Your task to perform on an android device: toggle data saver in the chrome app Image 0: 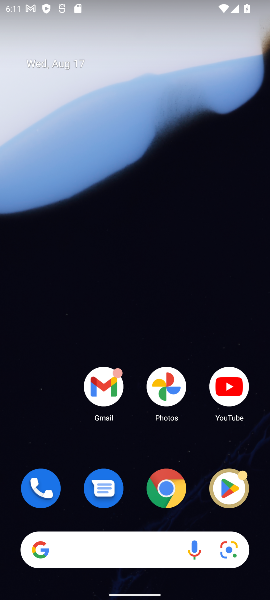
Step 0: drag from (164, 542) to (133, 51)
Your task to perform on an android device: toggle data saver in the chrome app Image 1: 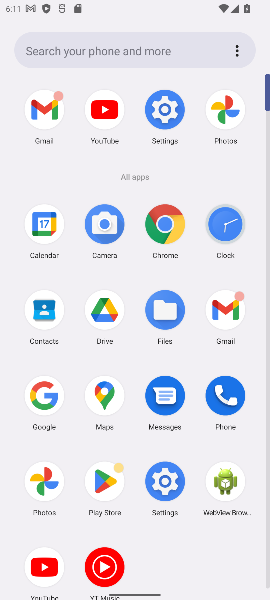
Step 1: click (166, 220)
Your task to perform on an android device: toggle data saver in the chrome app Image 2: 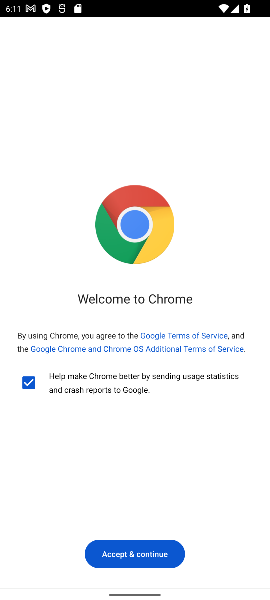
Step 2: click (152, 556)
Your task to perform on an android device: toggle data saver in the chrome app Image 3: 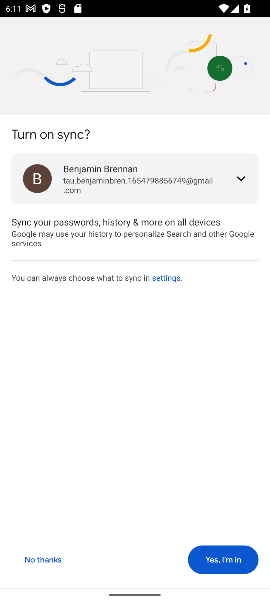
Step 3: click (213, 555)
Your task to perform on an android device: toggle data saver in the chrome app Image 4: 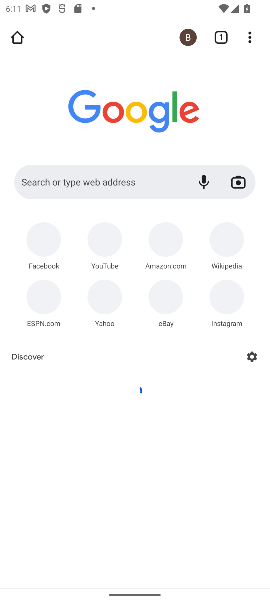
Step 4: drag from (251, 43) to (156, 343)
Your task to perform on an android device: toggle data saver in the chrome app Image 5: 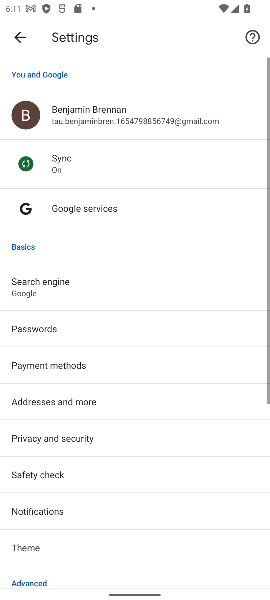
Step 5: drag from (94, 399) to (51, 49)
Your task to perform on an android device: toggle data saver in the chrome app Image 6: 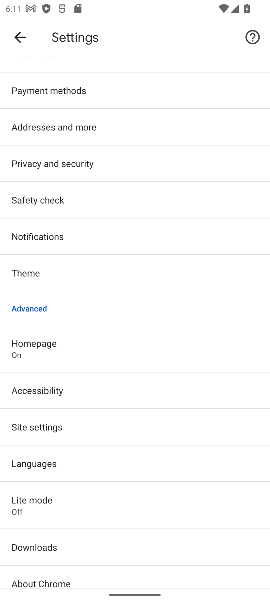
Step 6: drag from (148, 315) to (166, 145)
Your task to perform on an android device: toggle data saver in the chrome app Image 7: 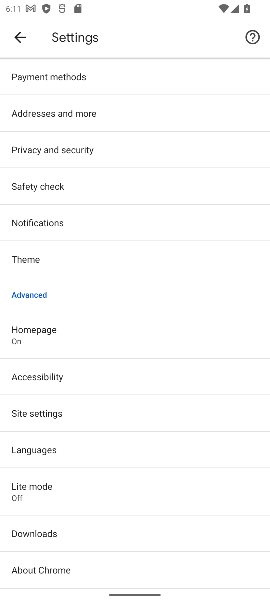
Step 7: click (66, 494)
Your task to perform on an android device: toggle data saver in the chrome app Image 8: 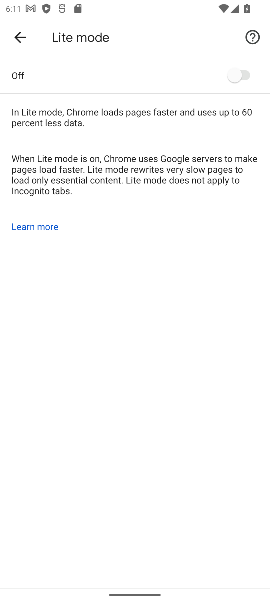
Step 8: click (243, 74)
Your task to perform on an android device: toggle data saver in the chrome app Image 9: 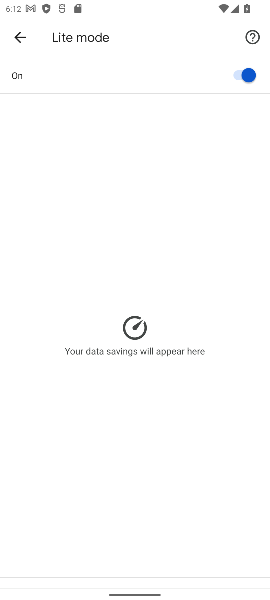
Step 9: task complete